Your task to perform on an android device: Open Google Maps and go to "Timeline" Image 0: 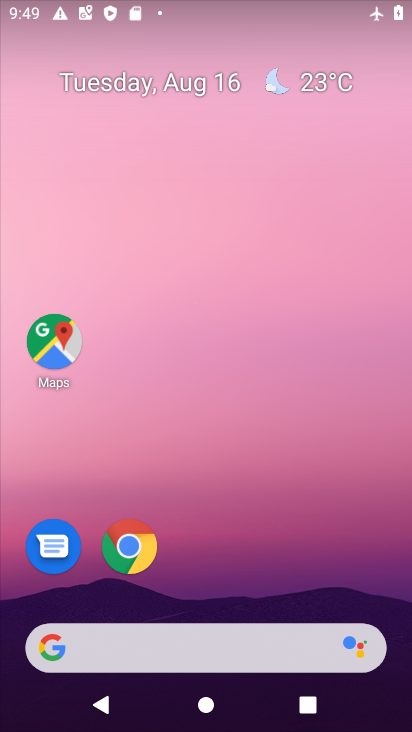
Step 0: click (47, 336)
Your task to perform on an android device: Open Google Maps and go to "Timeline" Image 1: 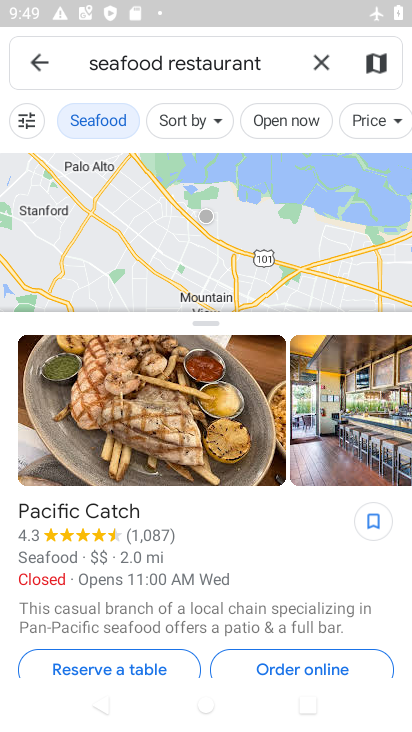
Step 1: click (40, 60)
Your task to perform on an android device: Open Google Maps and go to "Timeline" Image 2: 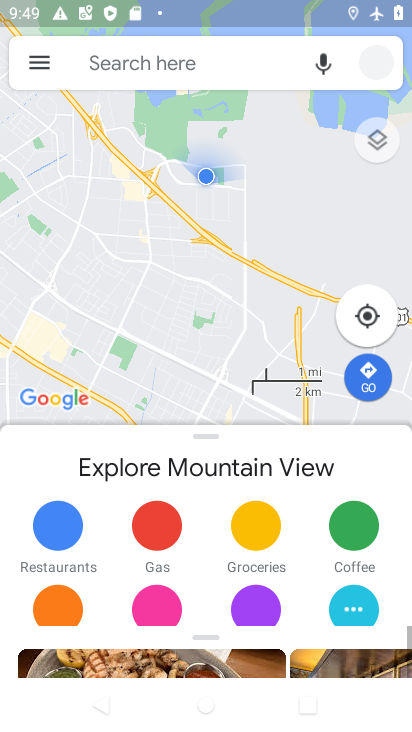
Step 2: click (40, 60)
Your task to perform on an android device: Open Google Maps and go to "Timeline" Image 3: 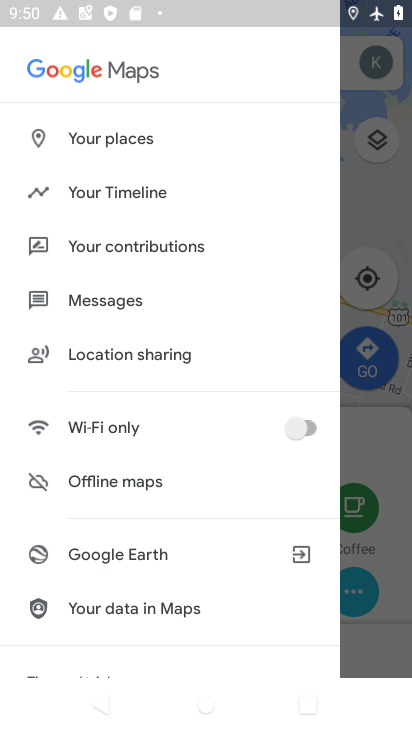
Step 3: click (115, 183)
Your task to perform on an android device: Open Google Maps and go to "Timeline" Image 4: 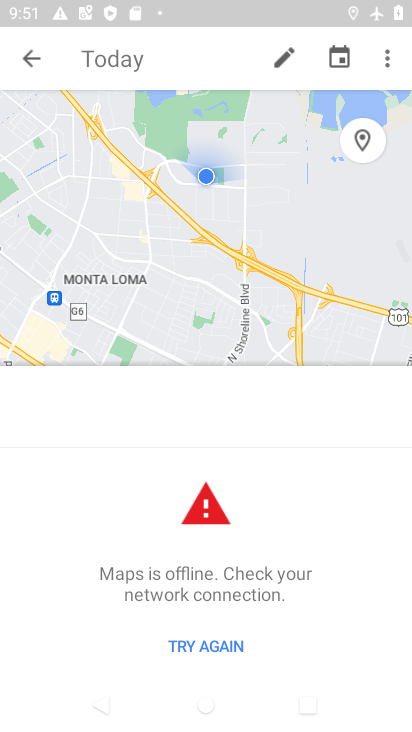
Step 4: task complete